Your task to perform on an android device: Show me productivity apps on the Play Store Image 0: 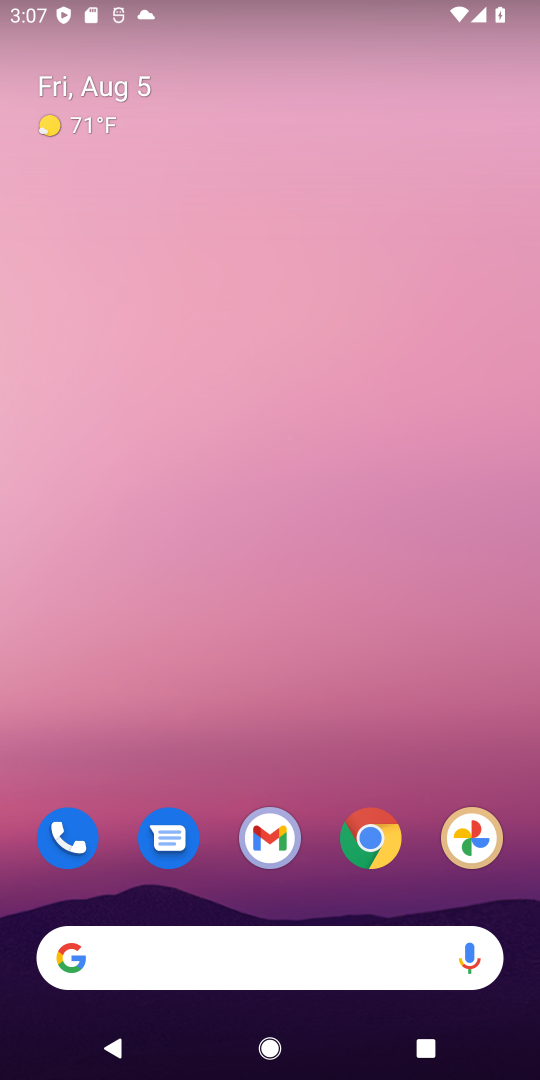
Step 0: drag from (422, 777) to (354, 64)
Your task to perform on an android device: Show me productivity apps on the Play Store Image 1: 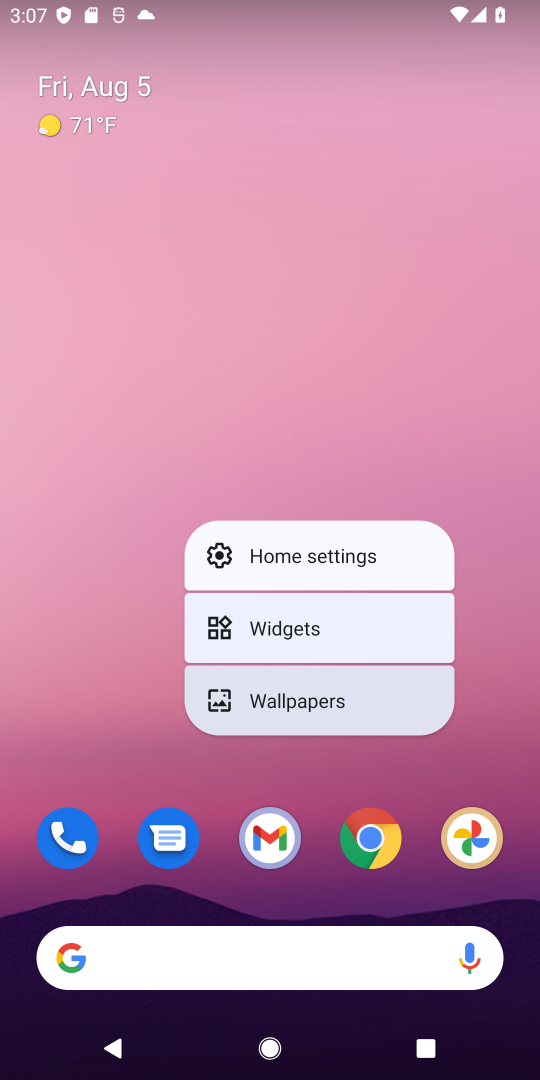
Step 1: drag from (432, 907) to (393, 370)
Your task to perform on an android device: Show me productivity apps on the Play Store Image 2: 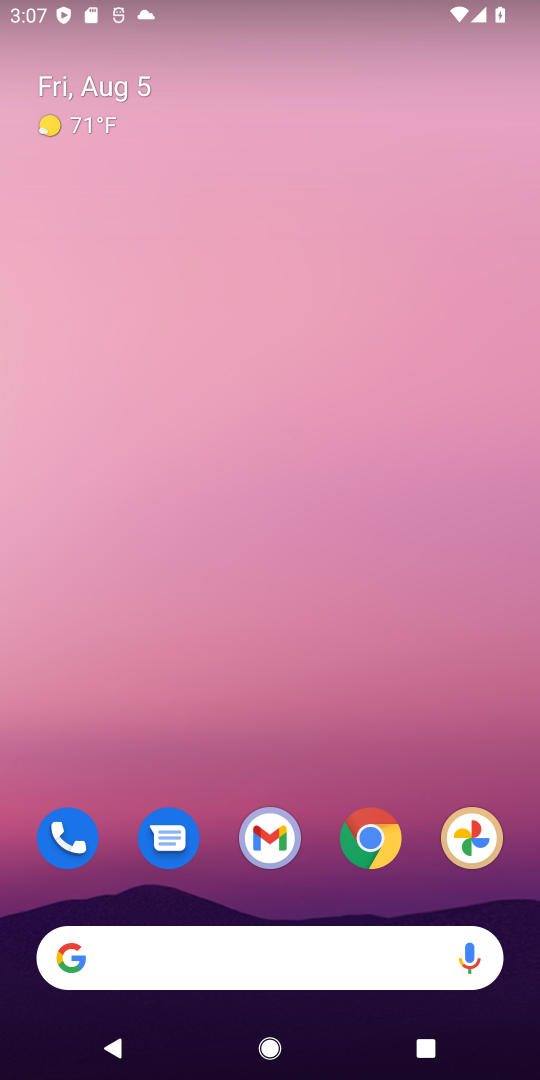
Step 2: drag from (323, 917) to (293, 244)
Your task to perform on an android device: Show me productivity apps on the Play Store Image 3: 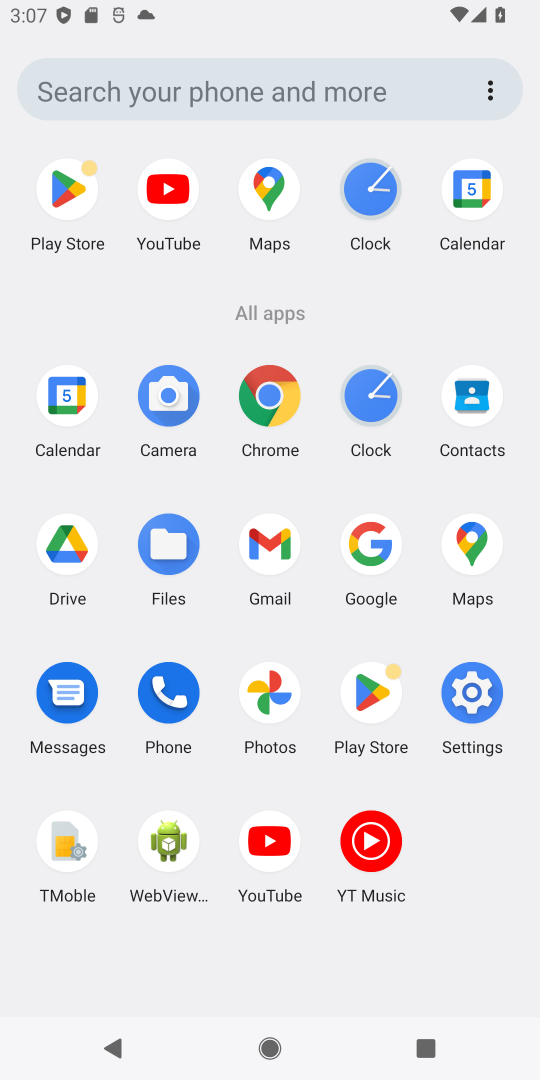
Step 3: click (384, 696)
Your task to perform on an android device: Show me productivity apps on the Play Store Image 4: 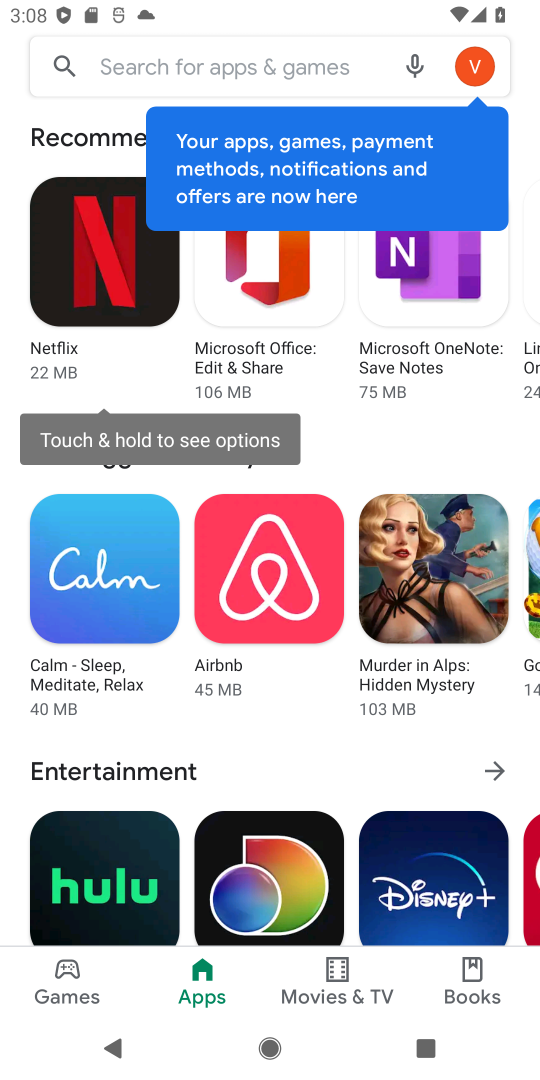
Step 4: drag from (383, 765) to (356, 1070)
Your task to perform on an android device: Show me productivity apps on the Play Store Image 5: 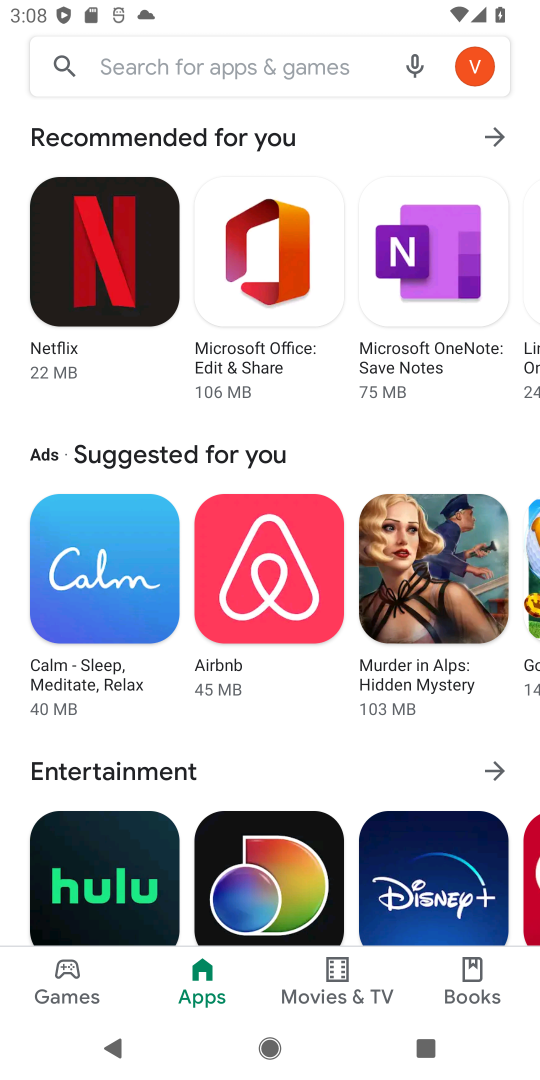
Step 5: drag from (357, 769) to (427, 71)
Your task to perform on an android device: Show me productivity apps on the Play Store Image 6: 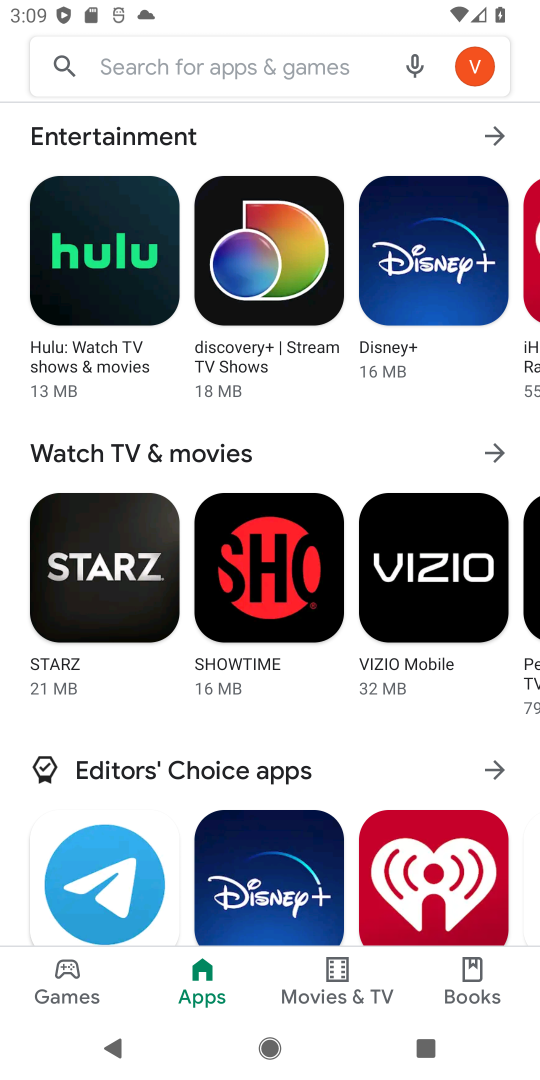
Step 6: drag from (433, 759) to (367, 0)
Your task to perform on an android device: Show me productivity apps on the Play Store Image 7: 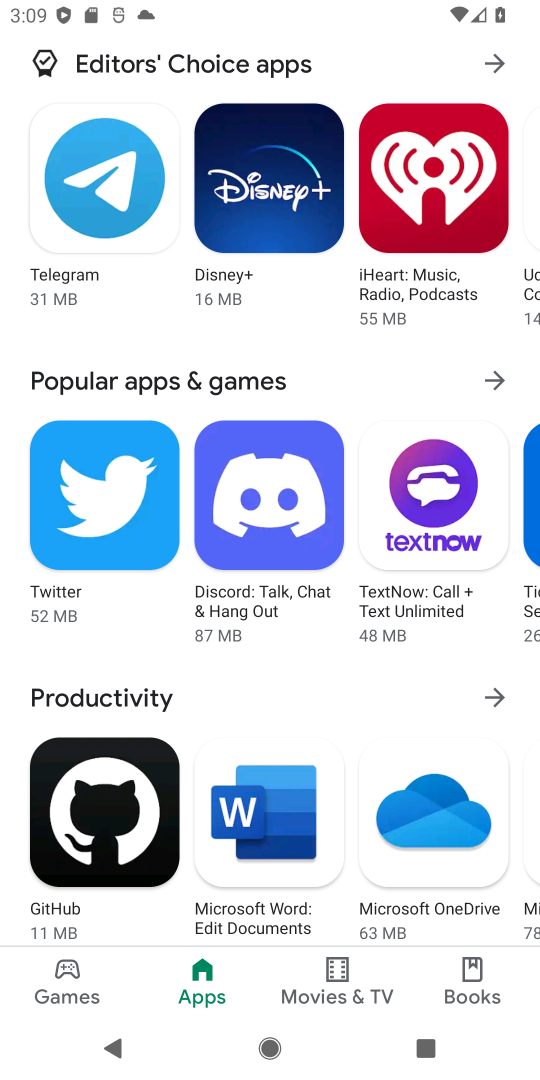
Step 7: click (490, 700)
Your task to perform on an android device: Show me productivity apps on the Play Store Image 8: 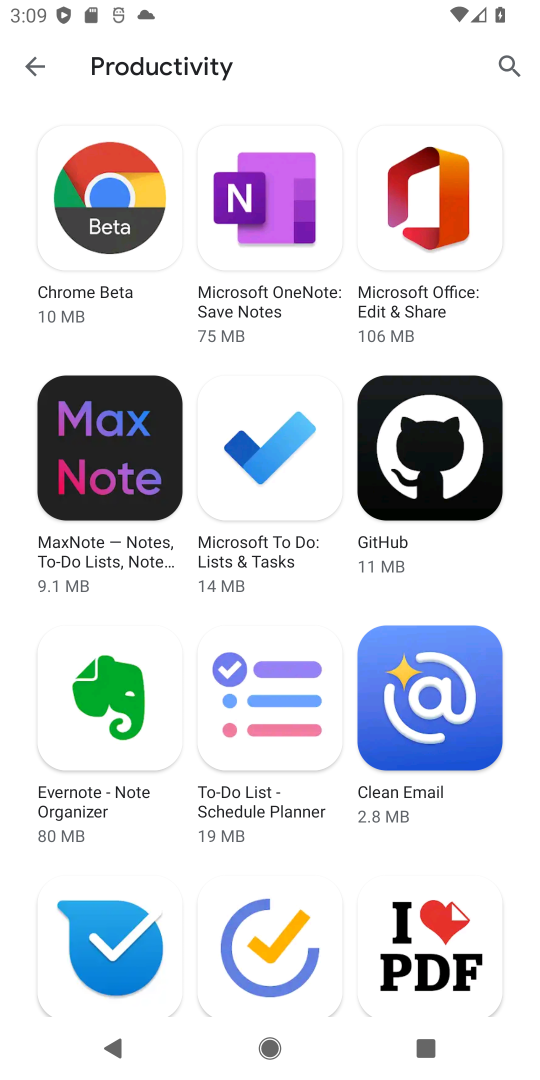
Step 8: task complete